Your task to perform on an android device: check storage Image 0: 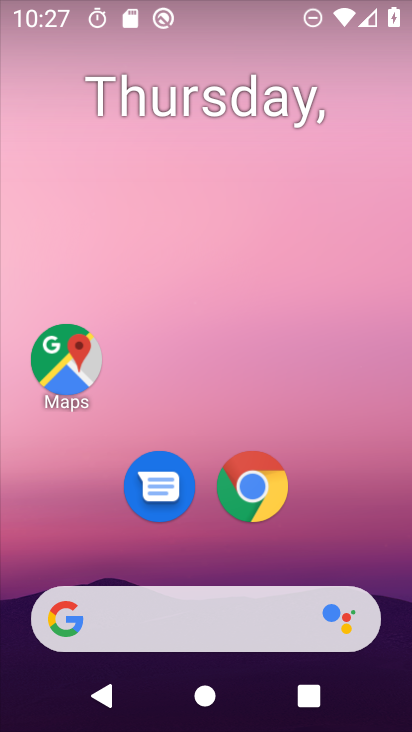
Step 0: drag from (213, 548) to (256, 126)
Your task to perform on an android device: check storage Image 1: 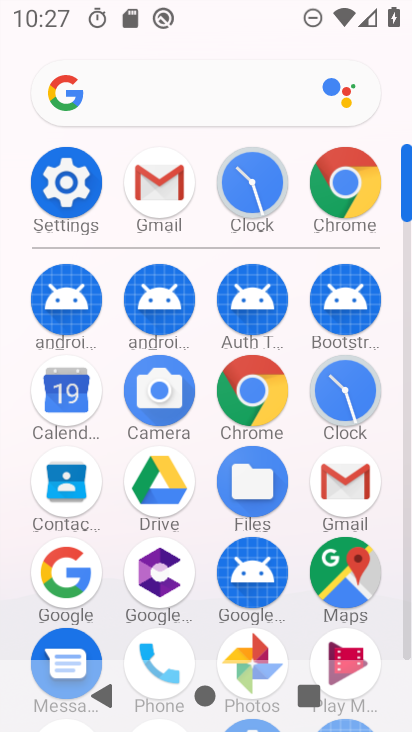
Step 1: click (73, 180)
Your task to perform on an android device: check storage Image 2: 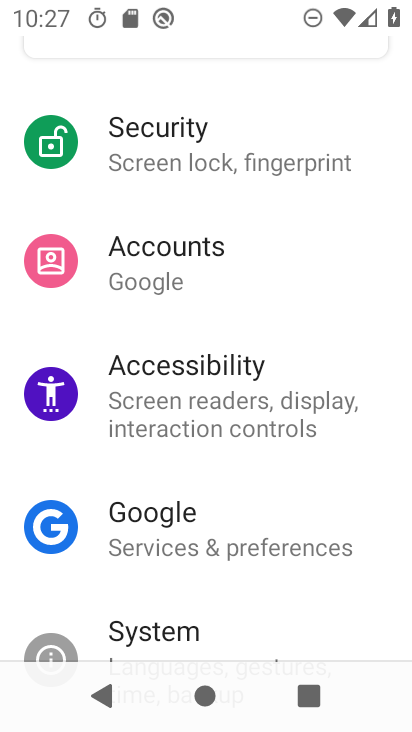
Step 2: drag from (167, 618) to (247, 209)
Your task to perform on an android device: check storage Image 3: 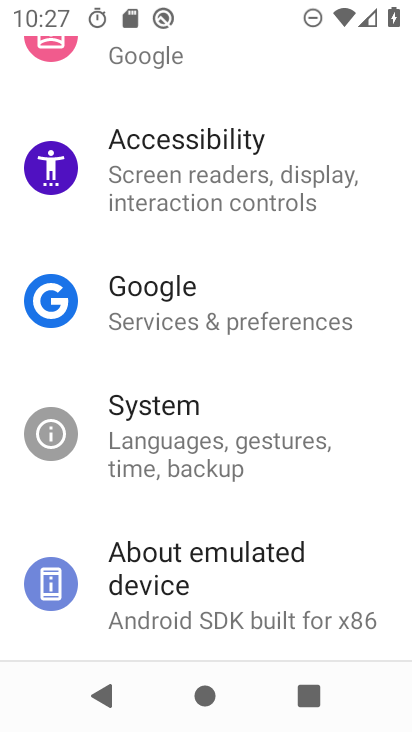
Step 3: drag from (159, 605) to (201, 646)
Your task to perform on an android device: check storage Image 4: 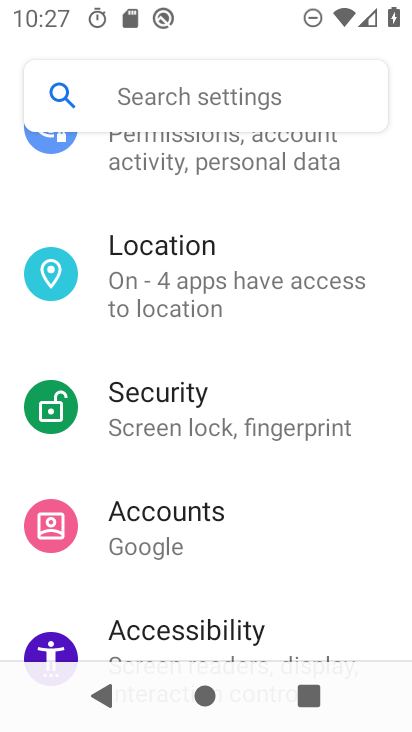
Step 4: drag from (230, 200) to (207, 569)
Your task to perform on an android device: check storage Image 5: 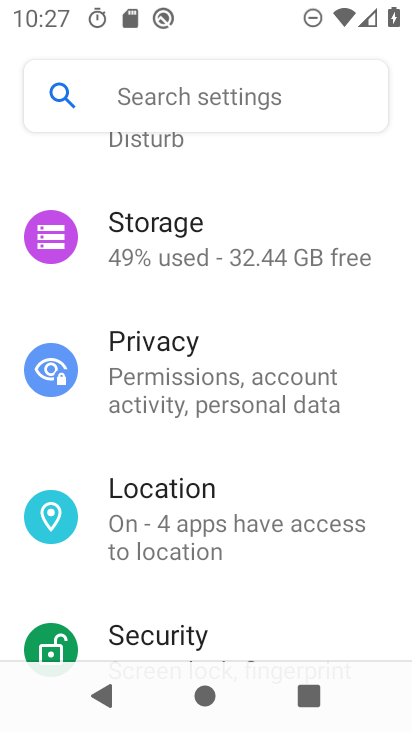
Step 5: click (173, 254)
Your task to perform on an android device: check storage Image 6: 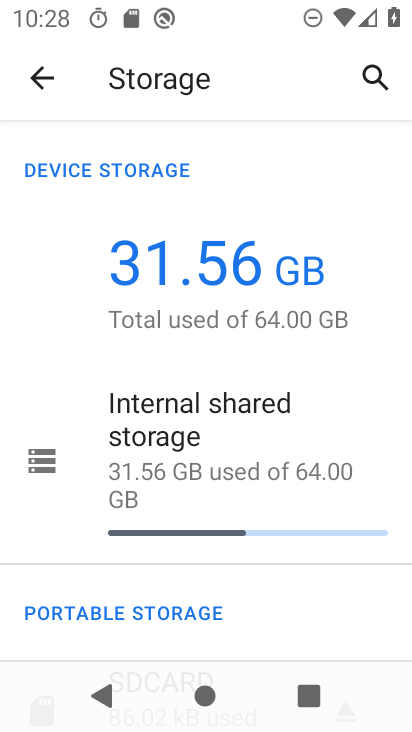
Step 6: task complete